Your task to perform on an android device: Open Chrome and go to settings Image 0: 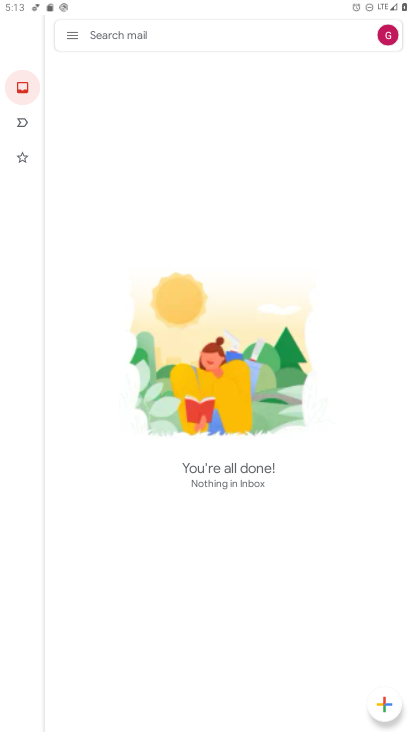
Step 0: press home button
Your task to perform on an android device: Open Chrome and go to settings Image 1: 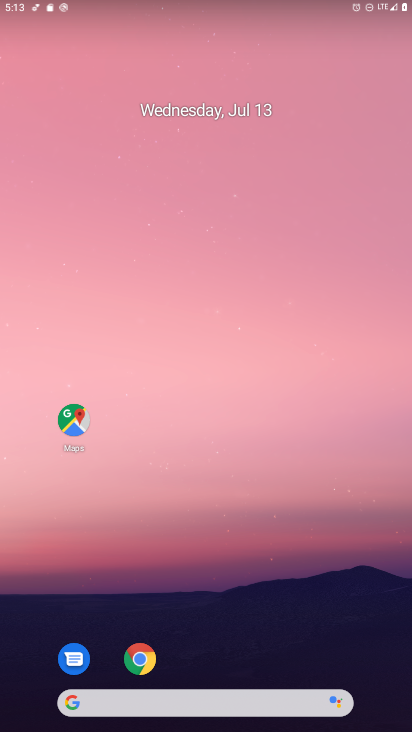
Step 1: drag from (289, 626) to (221, 142)
Your task to perform on an android device: Open Chrome and go to settings Image 2: 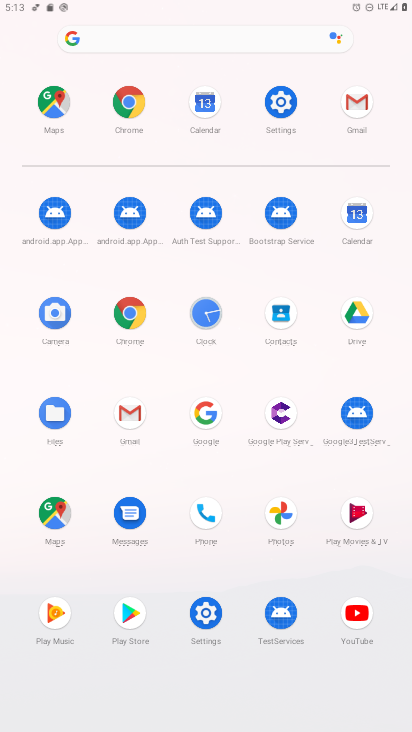
Step 2: click (136, 310)
Your task to perform on an android device: Open Chrome and go to settings Image 3: 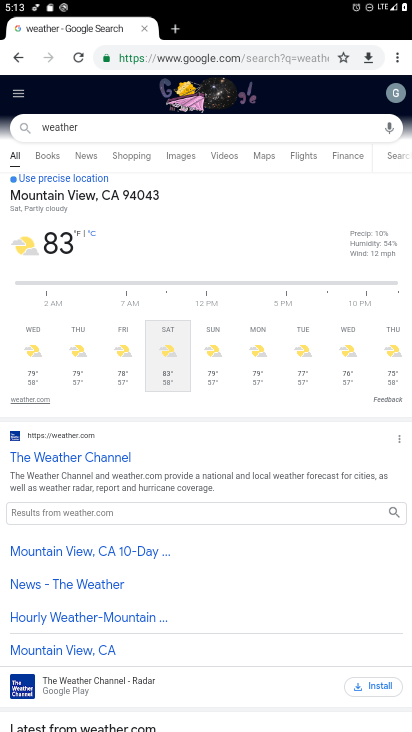
Step 3: task complete